Your task to perform on an android device: Add jbl charge 4 to the cart on ebay Image 0: 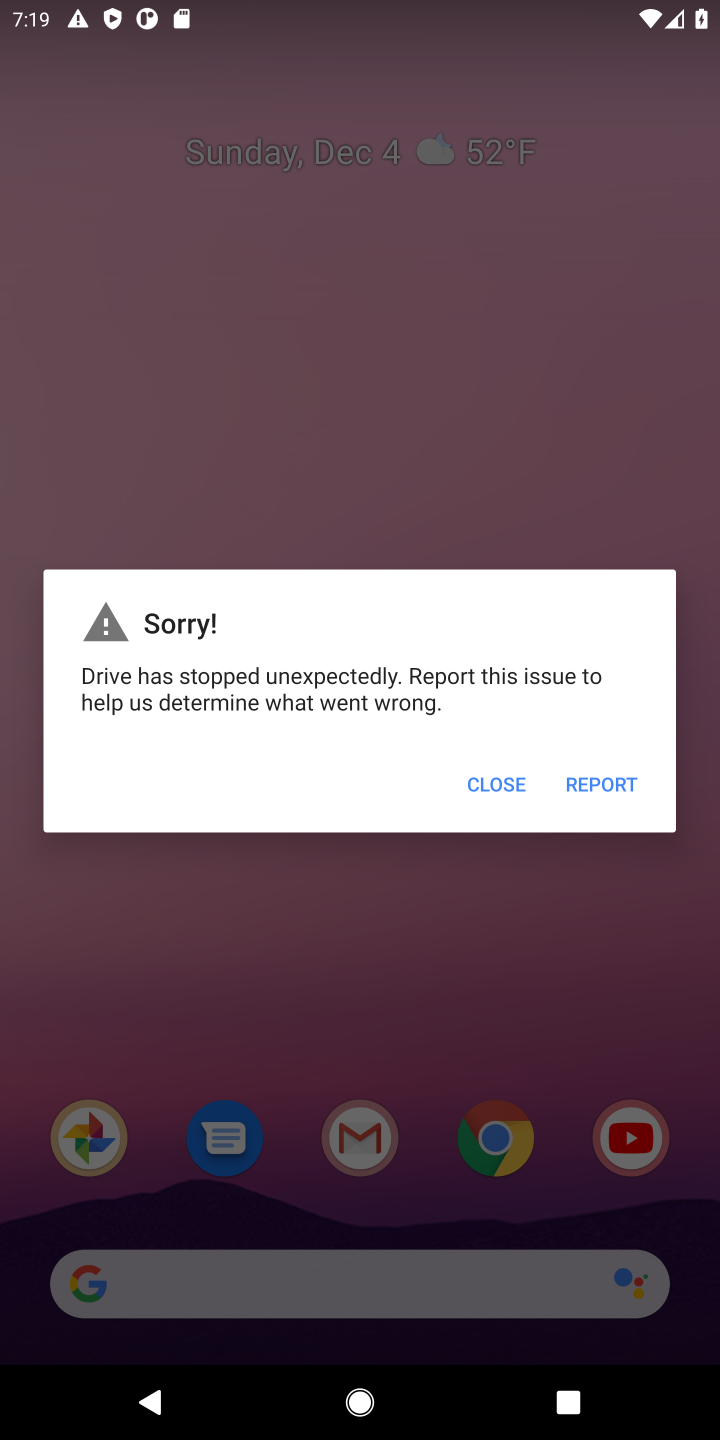
Step 0: press home button
Your task to perform on an android device: Add jbl charge 4 to the cart on ebay Image 1: 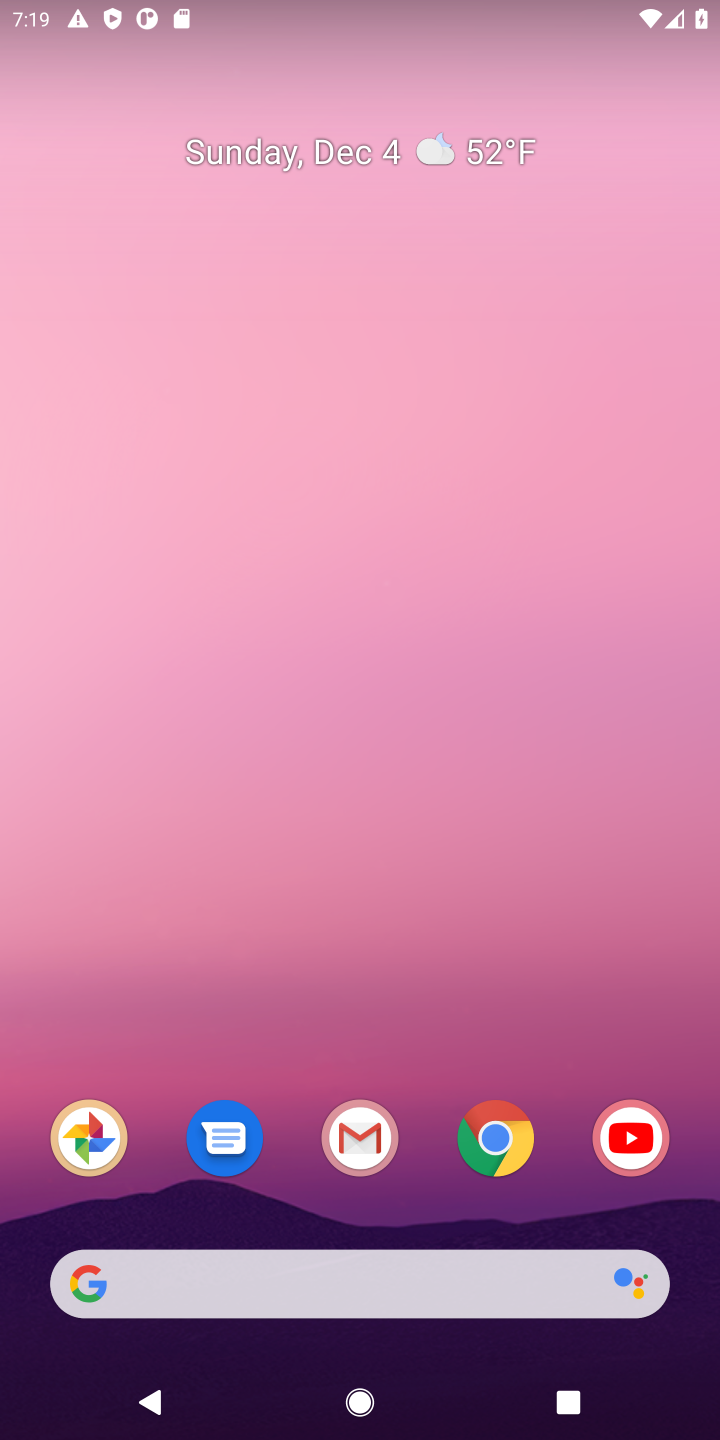
Step 1: click (482, 1128)
Your task to perform on an android device: Add jbl charge 4 to the cart on ebay Image 2: 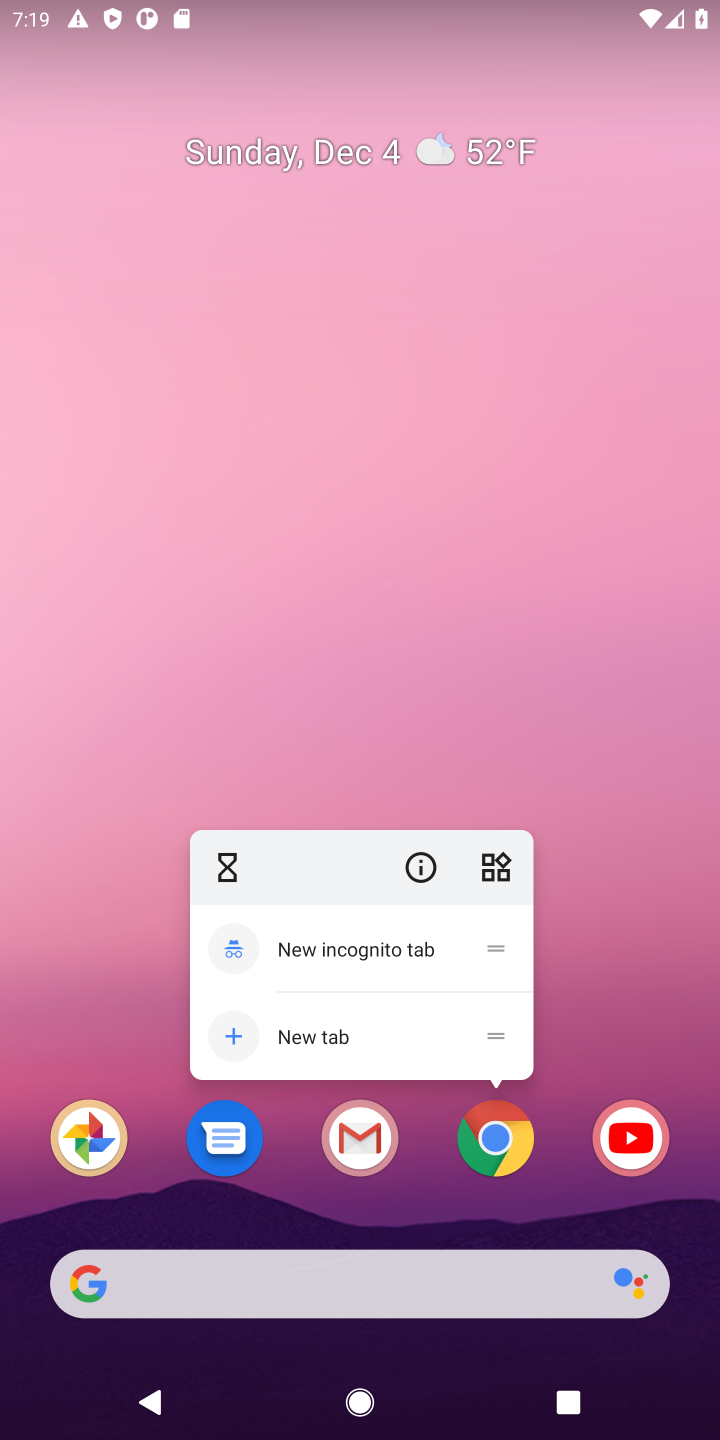
Step 2: click (518, 1147)
Your task to perform on an android device: Add jbl charge 4 to the cart on ebay Image 3: 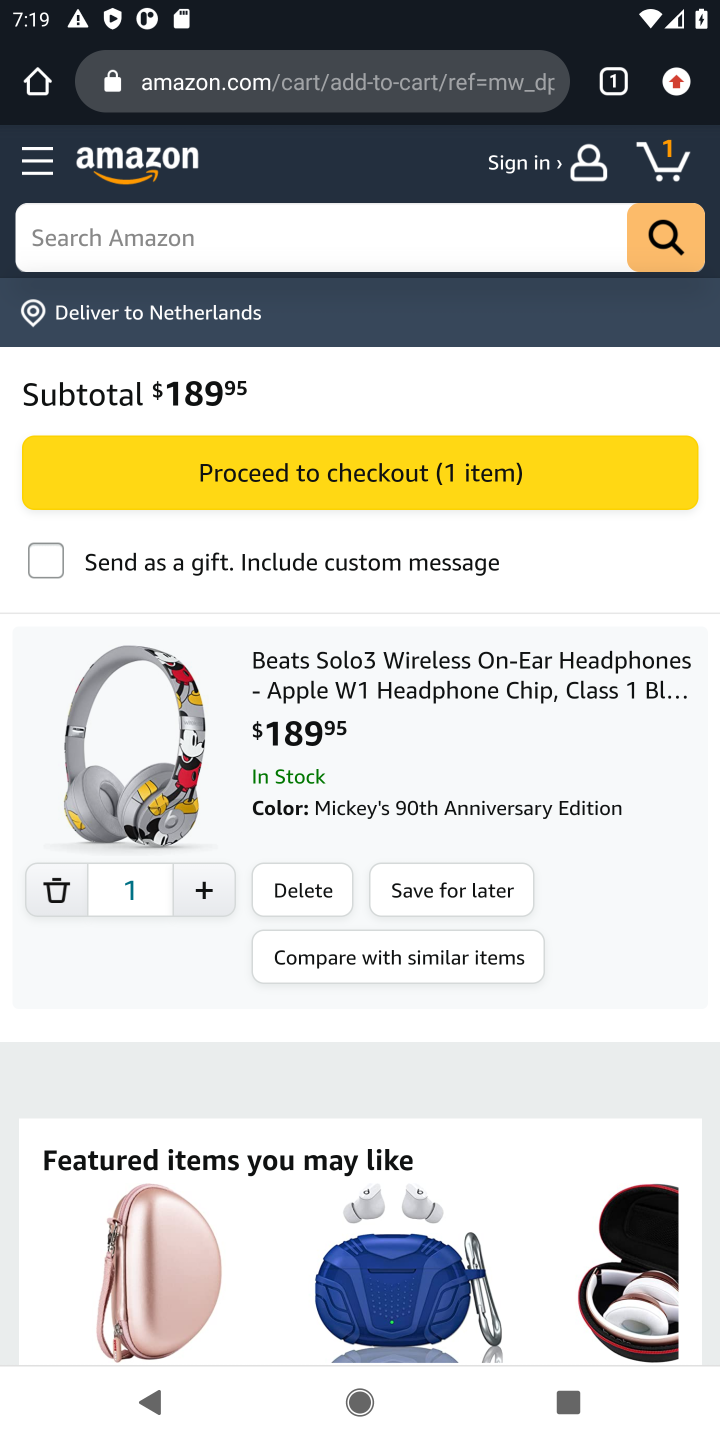
Step 3: click (349, 91)
Your task to perform on an android device: Add jbl charge 4 to the cart on ebay Image 4: 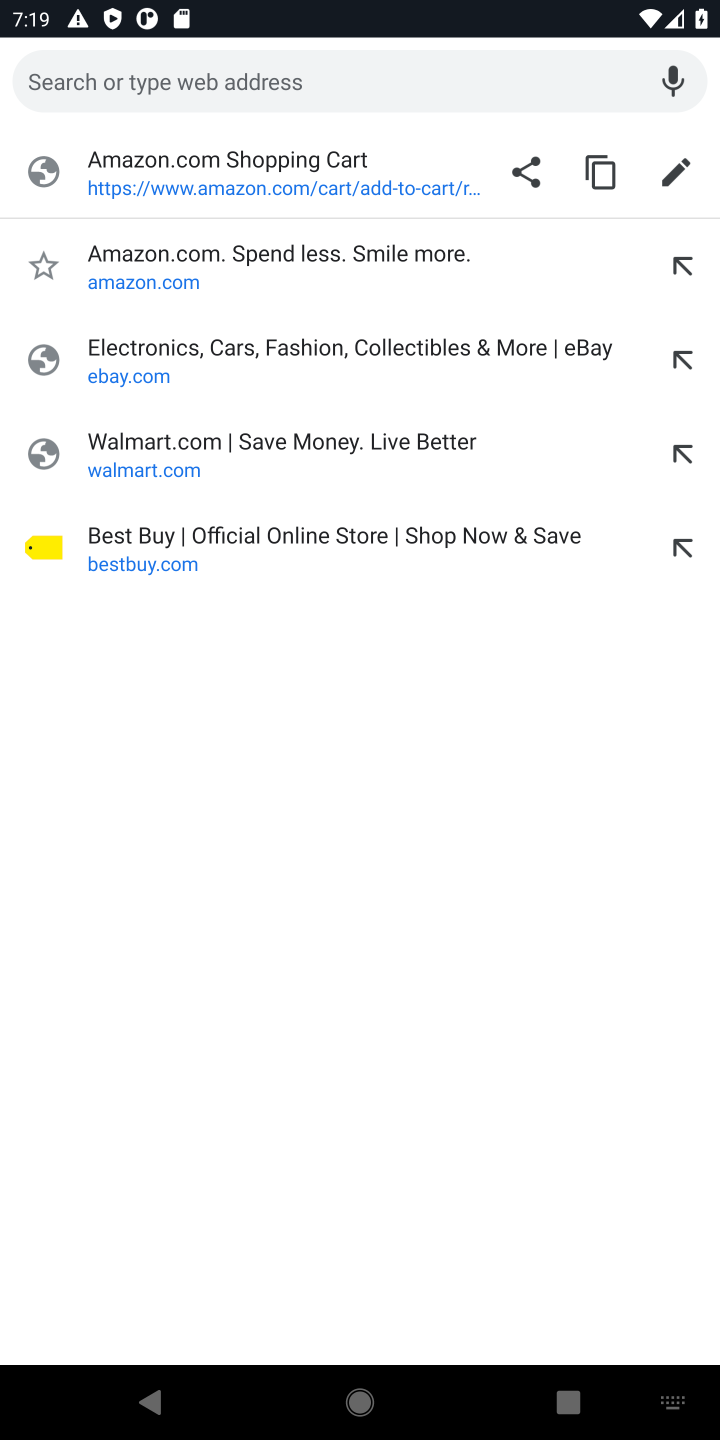
Step 4: click (172, 347)
Your task to perform on an android device: Add jbl charge 4 to the cart on ebay Image 5: 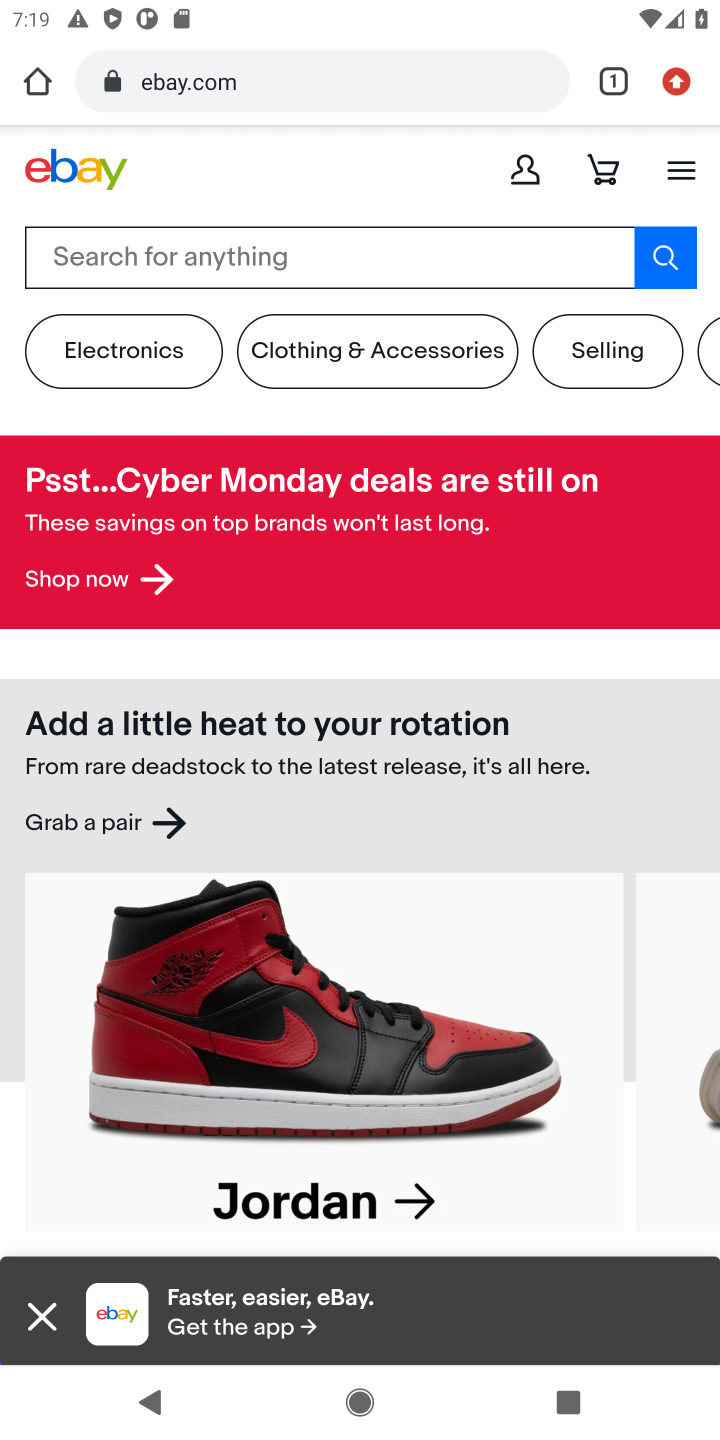
Step 5: click (475, 270)
Your task to perform on an android device: Add jbl charge 4 to the cart on ebay Image 6: 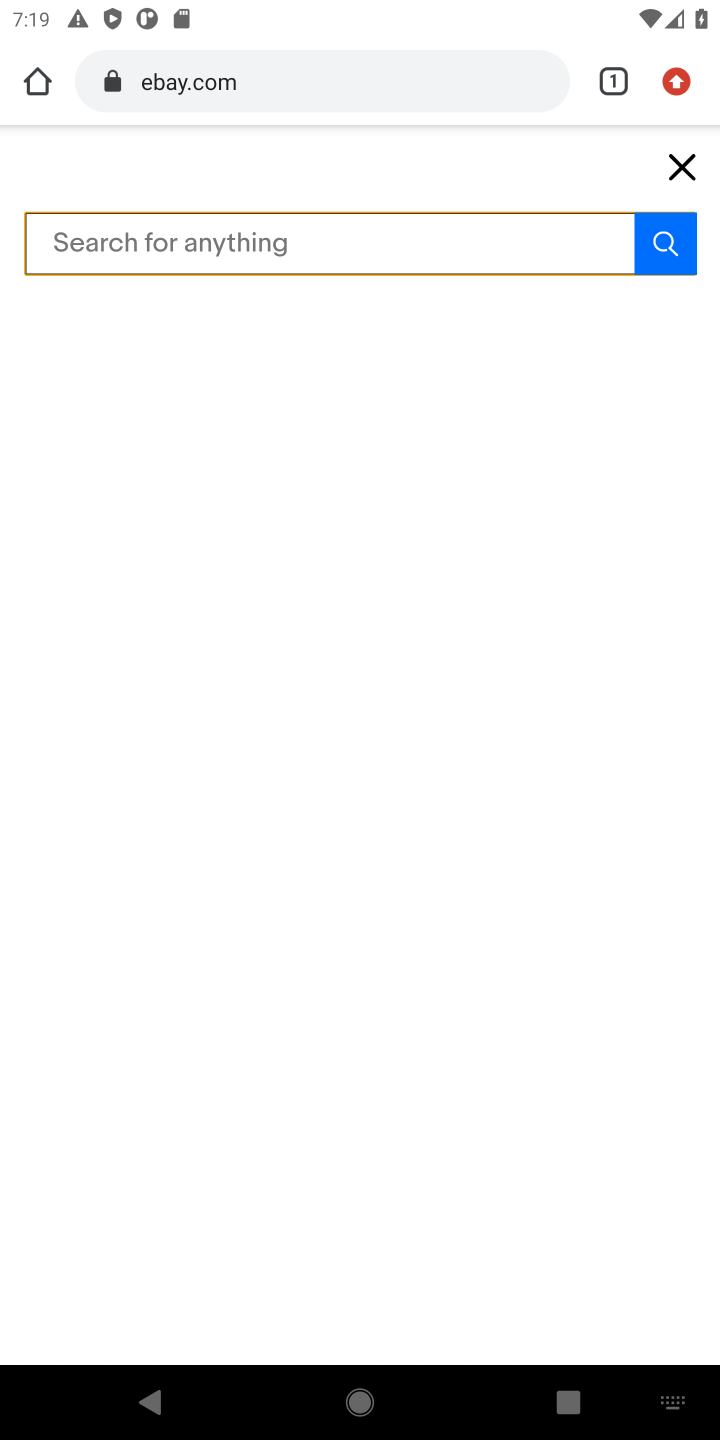
Step 6: type "jbl charge 4"
Your task to perform on an android device: Add jbl charge 4 to the cart on ebay Image 7: 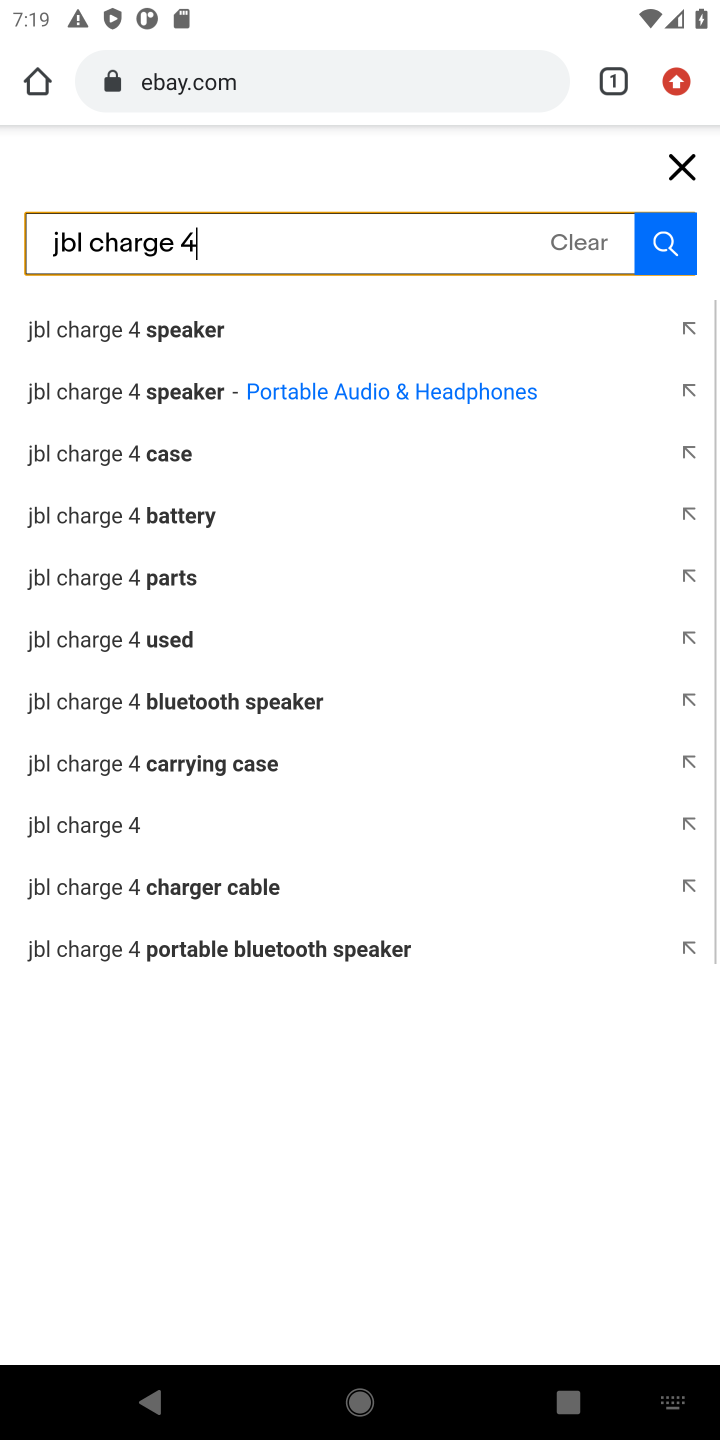
Step 7: press enter
Your task to perform on an android device: Add jbl charge 4 to the cart on ebay Image 8: 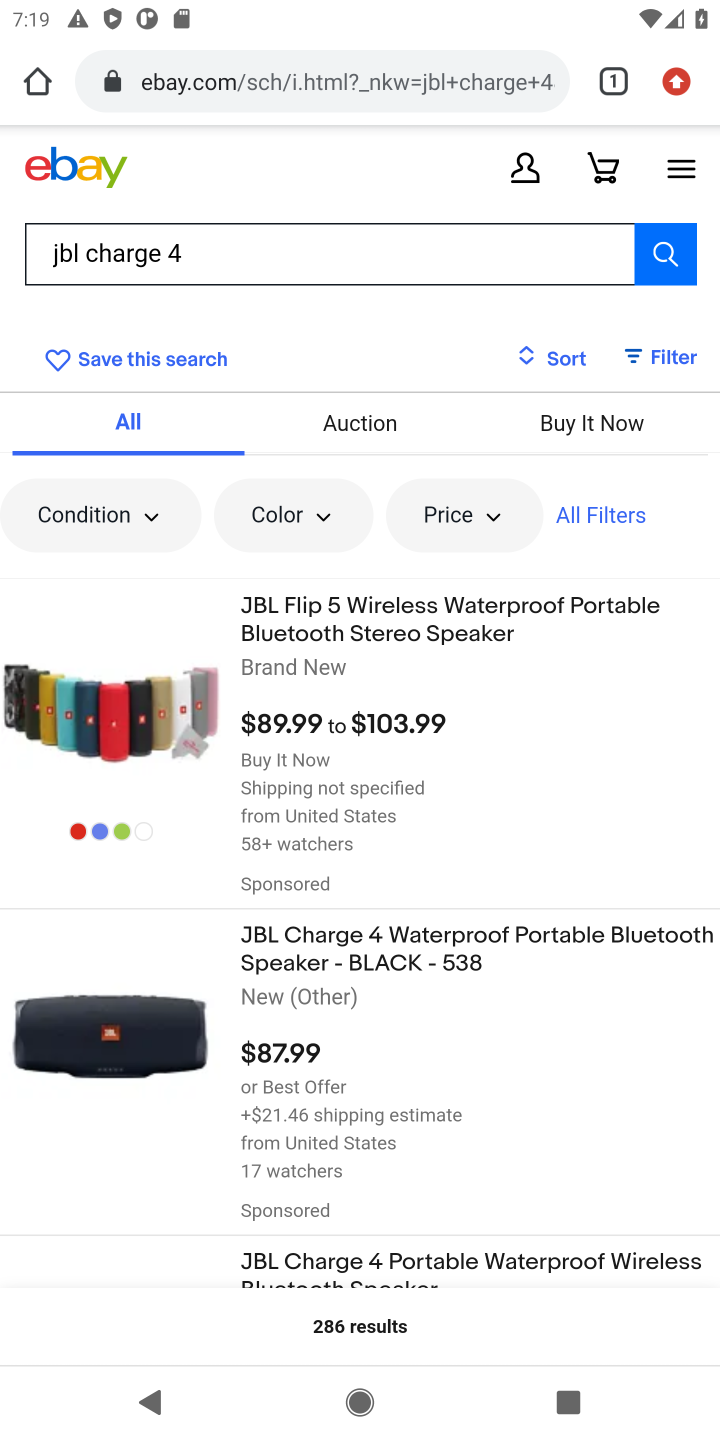
Step 8: click (166, 1041)
Your task to perform on an android device: Add jbl charge 4 to the cart on ebay Image 9: 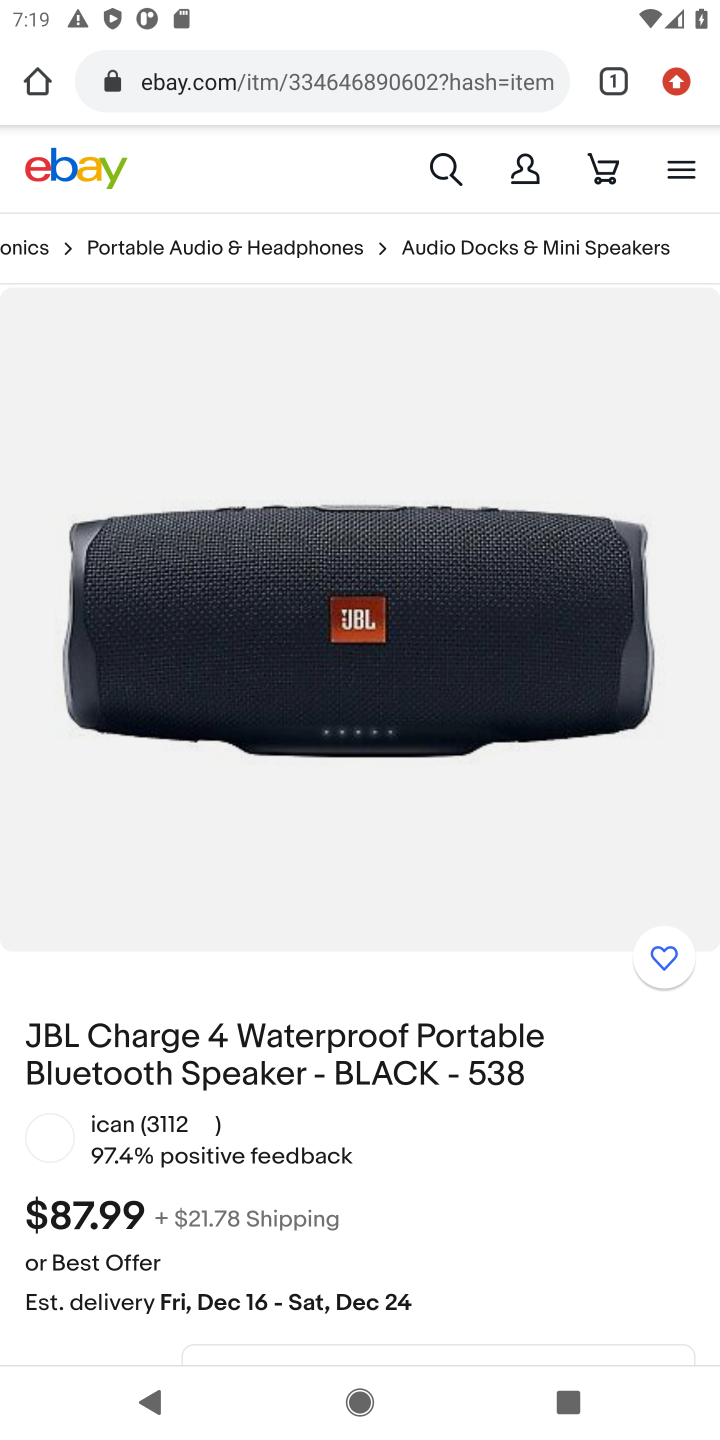
Step 9: drag from (472, 908) to (584, 322)
Your task to perform on an android device: Add jbl charge 4 to the cart on ebay Image 10: 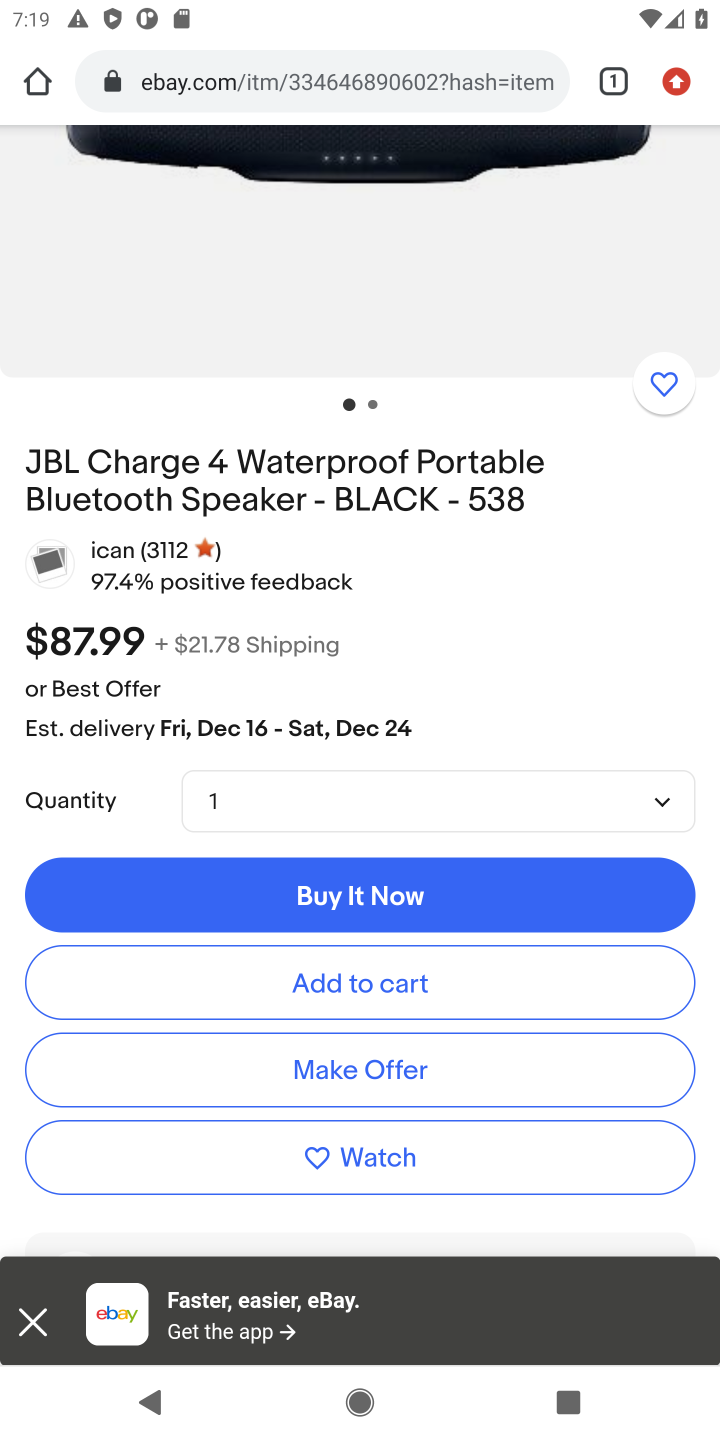
Step 10: click (364, 977)
Your task to perform on an android device: Add jbl charge 4 to the cart on ebay Image 11: 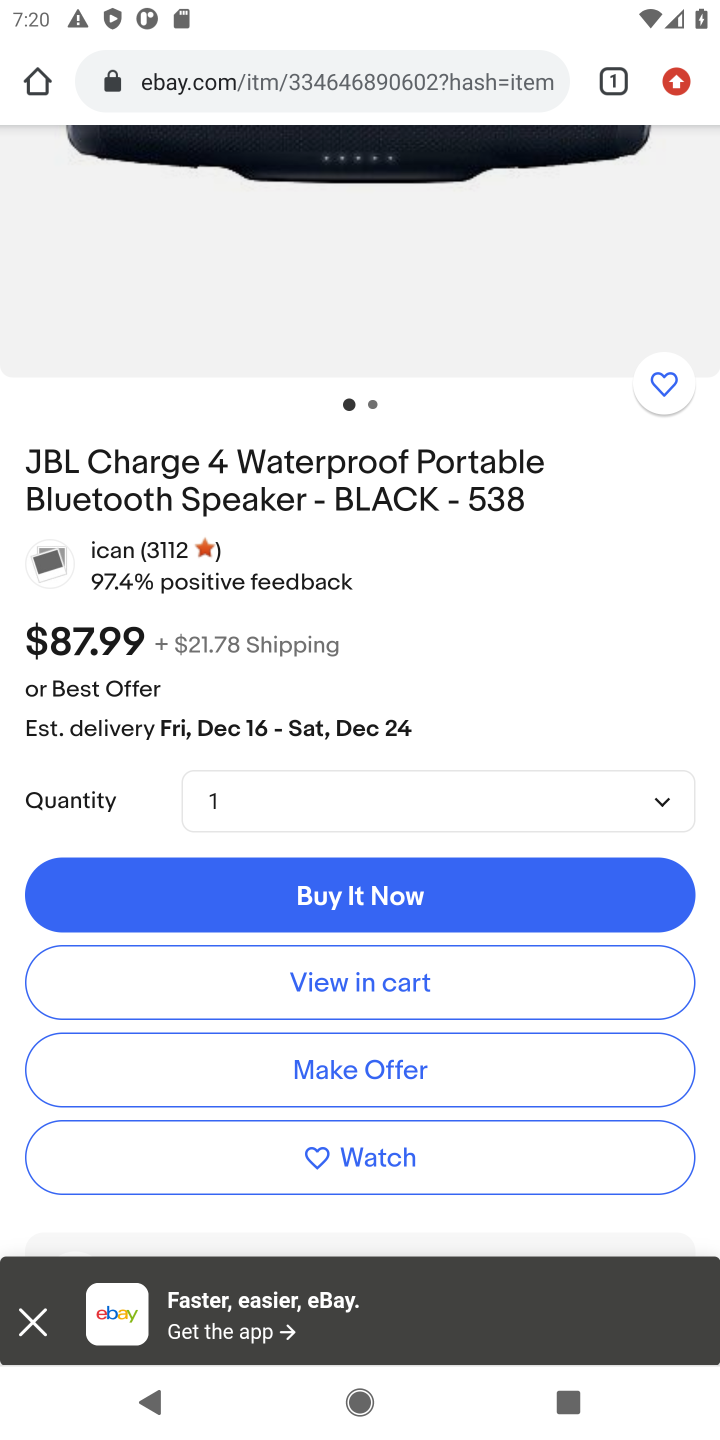
Step 11: click (364, 977)
Your task to perform on an android device: Add jbl charge 4 to the cart on ebay Image 12: 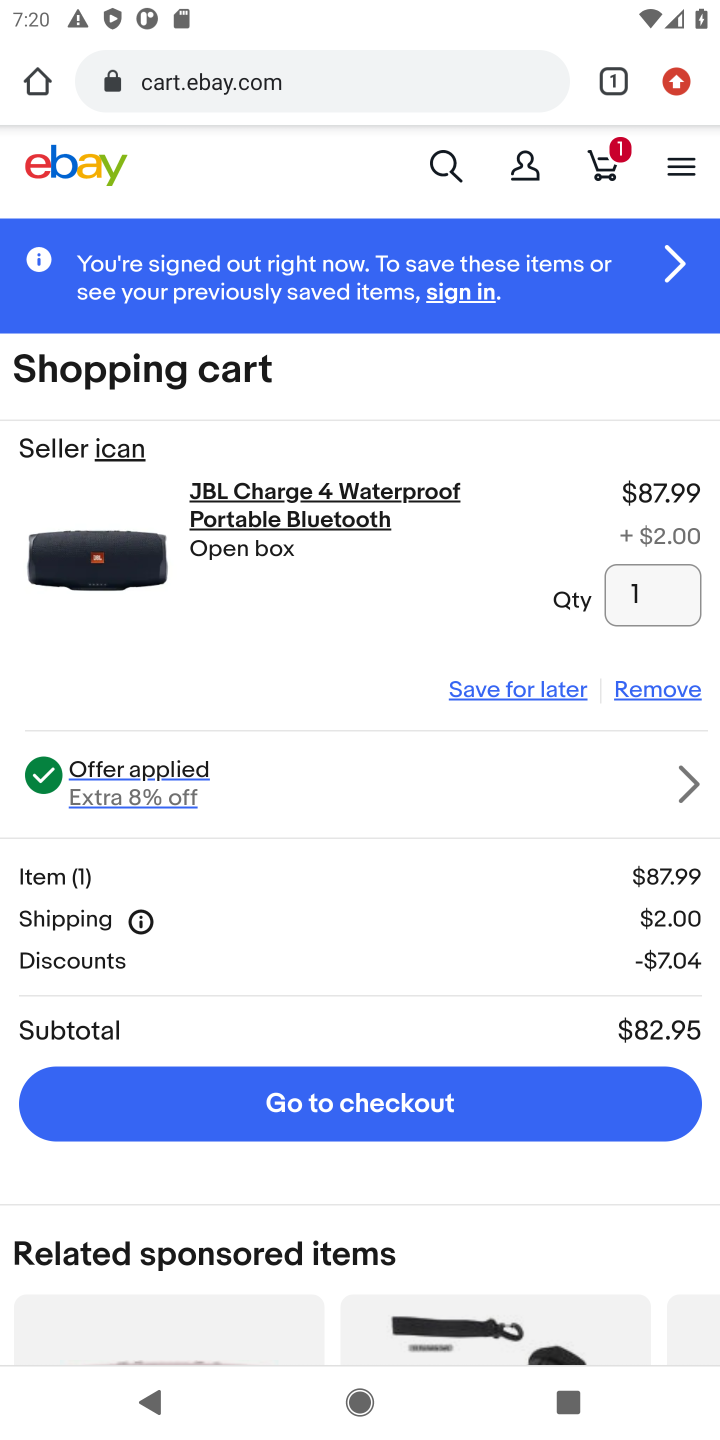
Step 12: task complete